Your task to perform on an android device: open a bookmark in the chrome app Image 0: 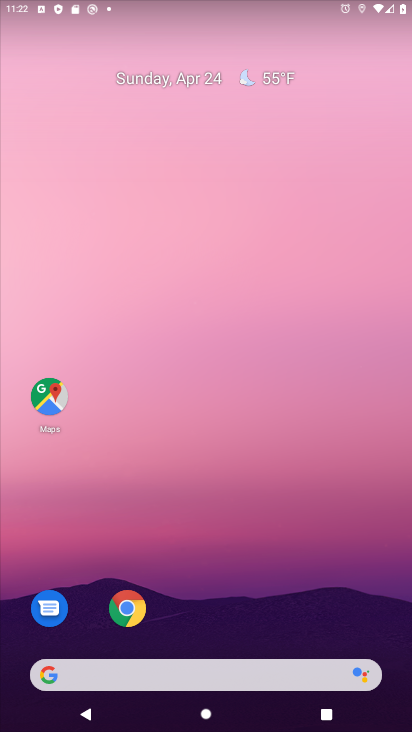
Step 0: click (129, 606)
Your task to perform on an android device: open a bookmark in the chrome app Image 1: 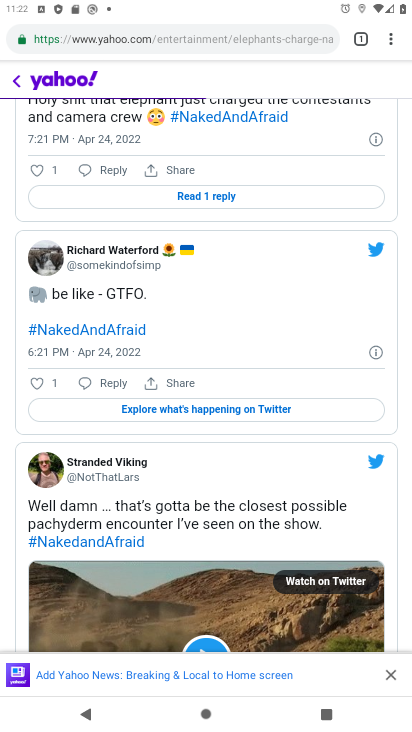
Step 1: click (389, 38)
Your task to perform on an android device: open a bookmark in the chrome app Image 2: 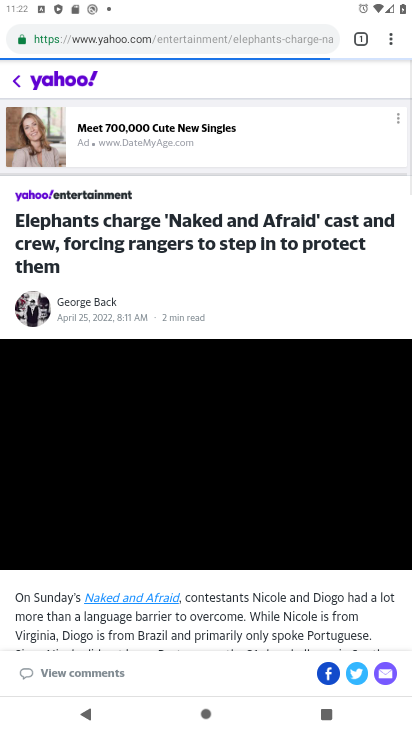
Step 2: click (389, 39)
Your task to perform on an android device: open a bookmark in the chrome app Image 3: 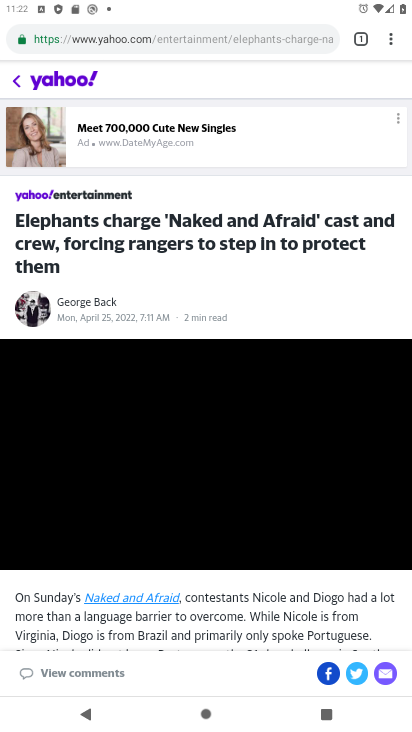
Step 3: click (390, 39)
Your task to perform on an android device: open a bookmark in the chrome app Image 4: 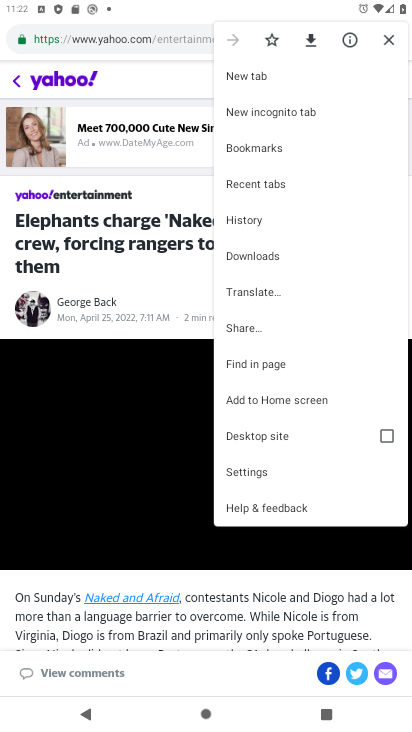
Step 4: click (246, 143)
Your task to perform on an android device: open a bookmark in the chrome app Image 5: 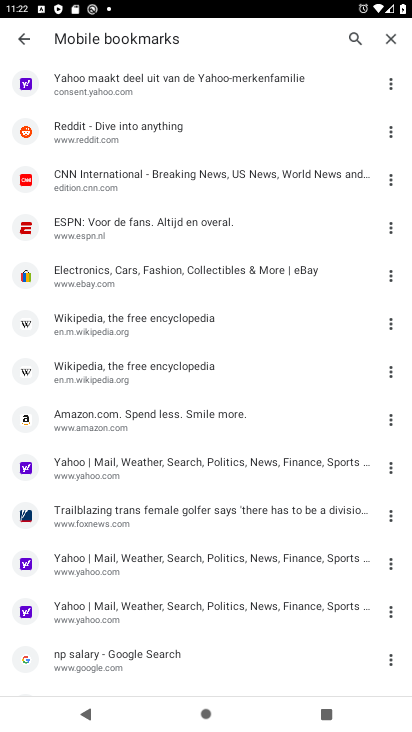
Step 5: click (86, 465)
Your task to perform on an android device: open a bookmark in the chrome app Image 6: 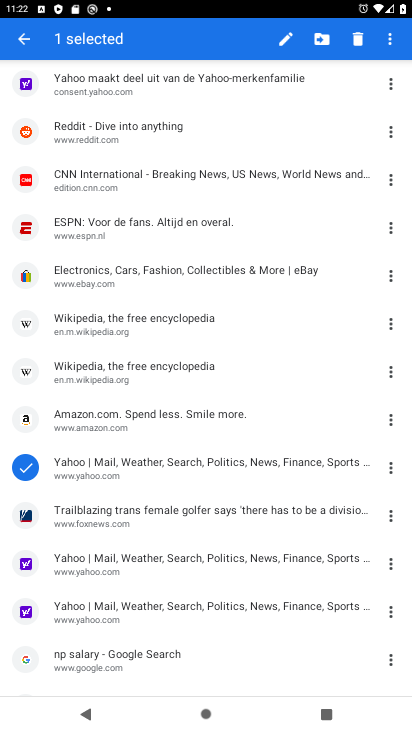
Step 6: click (18, 38)
Your task to perform on an android device: open a bookmark in the chrome app Image 7: 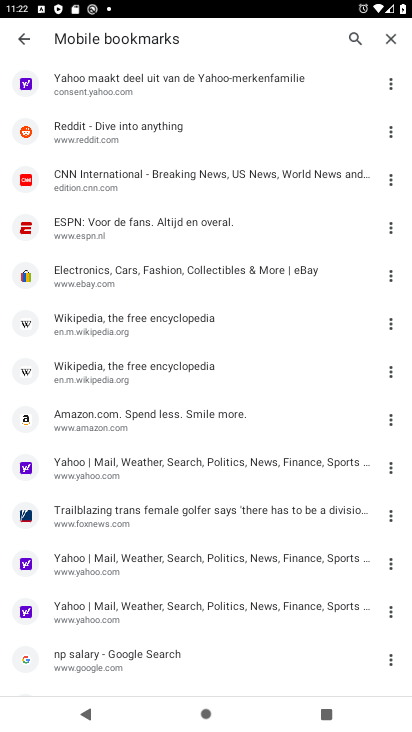
Step 7: task complete